Your task to perform on an android device: Open Google Chrome Image 0: 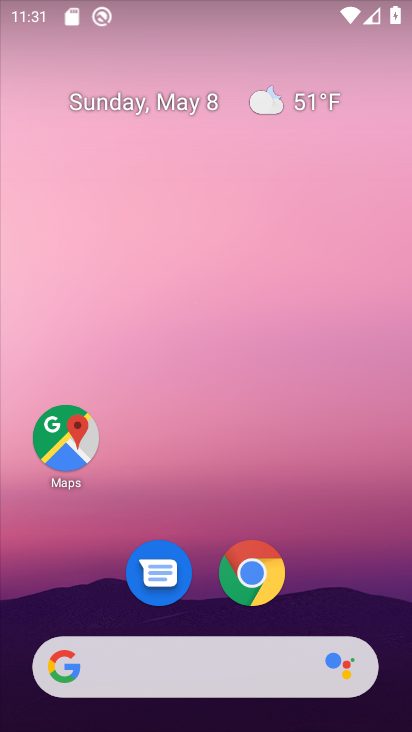
Step 0: click (262, 574)
Your task to perform on an android device: Open Google Chrome Image 1: 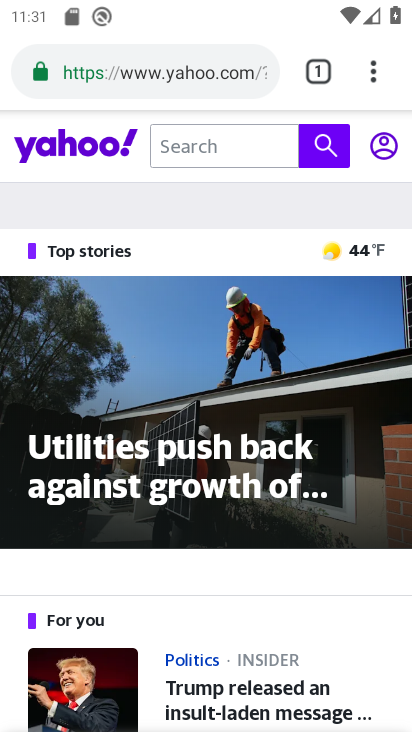
Step 1: click (320, 68)
Your task to perform on an android device: Open Google Chrome Image 2: 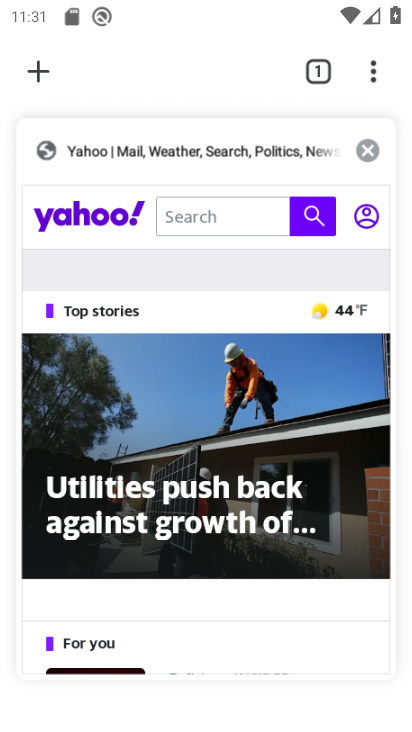
Step 2: click (366, 152)
Your task to perform on an android device: Open Google Chrome Image 3: 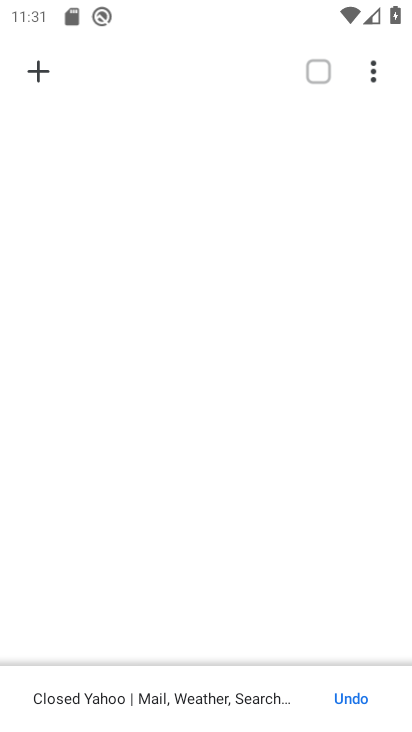
Step 3: click (32, 72)
Your task to perform on an android device: Open Google Chrome Image 4: 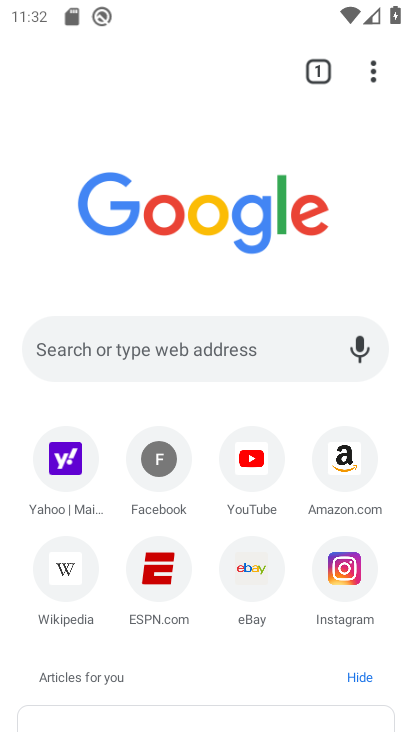
Step 4: task complete